Your task to perform on an android device: Go to display settings Image 0: 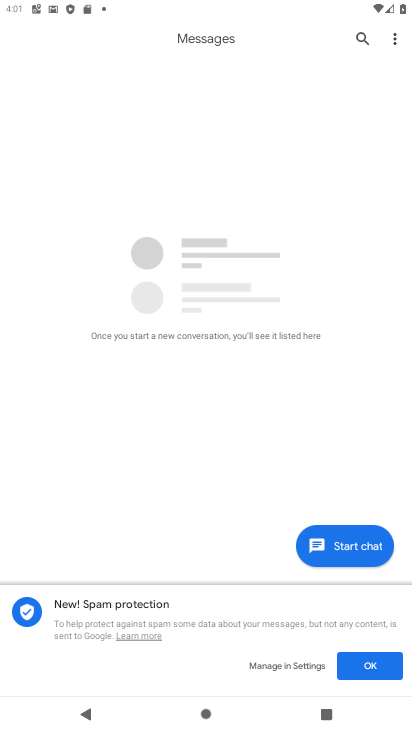
Step 0: press home button
Your task to perform on an android device: Go to display settings Image 1: 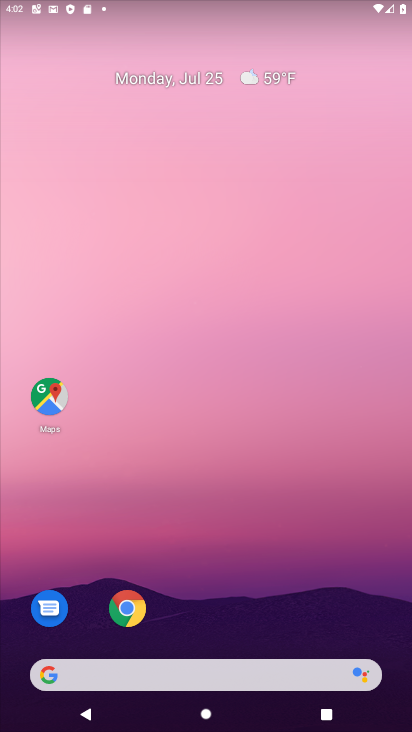
Step 1: drag from (257, 643) to (246, 105)
Your task to perform on an android device: Go to display settings Image 2: 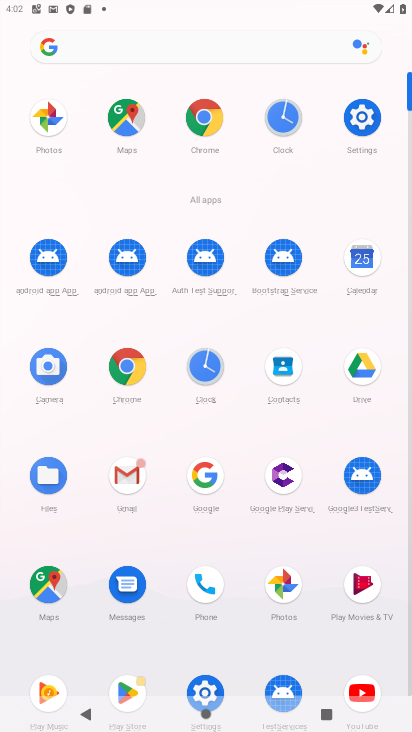
Step 2: click (212, 679)
Your task to perform on an android device: Go to display settings Image 3: 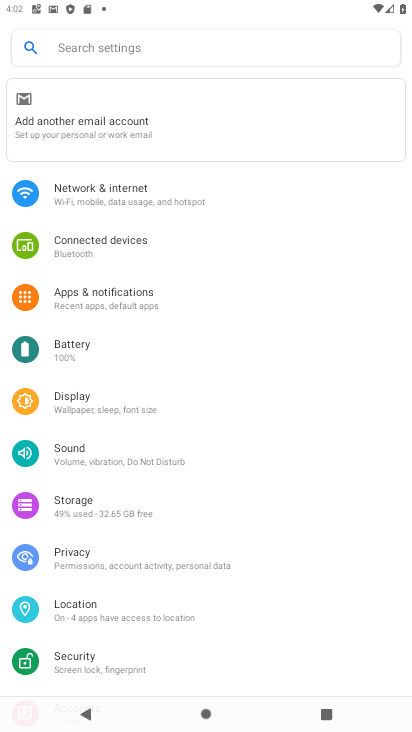
Step 3: drag from (382, 473) to (373, 718)
Your task to perform on an android device: Go to display settings Image 4: 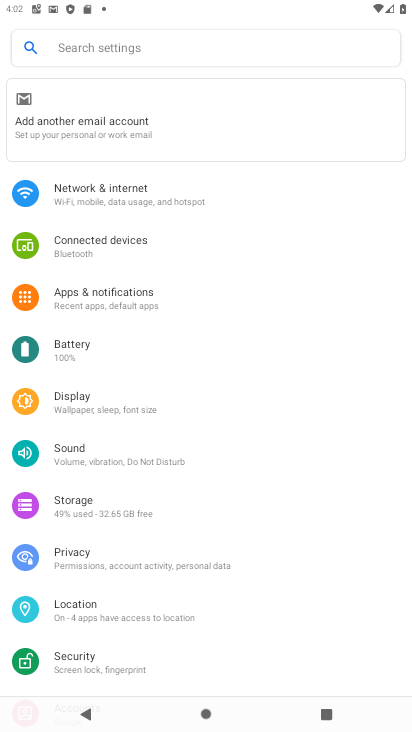
Step 4: click (70, 396)
Your task to perform on an android device: Go to display settings Image 5: 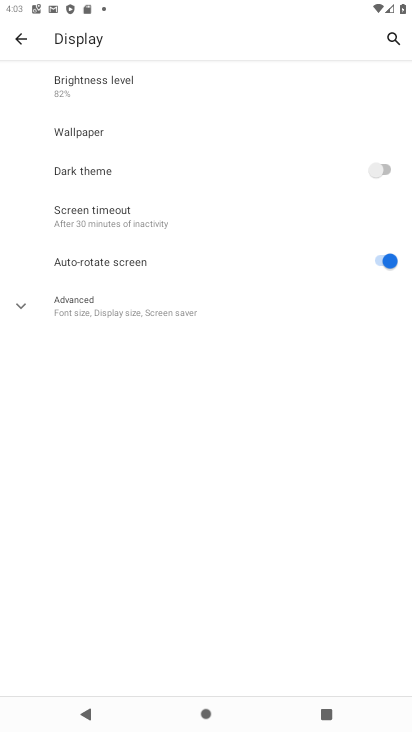
Step 5: task complete